Your task to perform on an android device: Check the news Image 0: 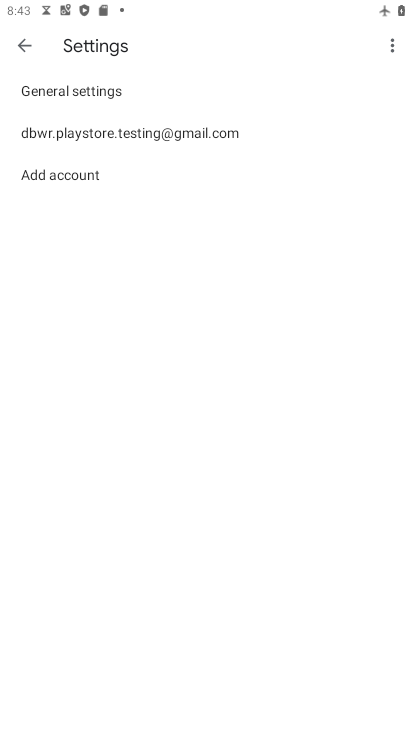
Step 0: press home button
Your task to perform on an android device: Check the news Image 1: 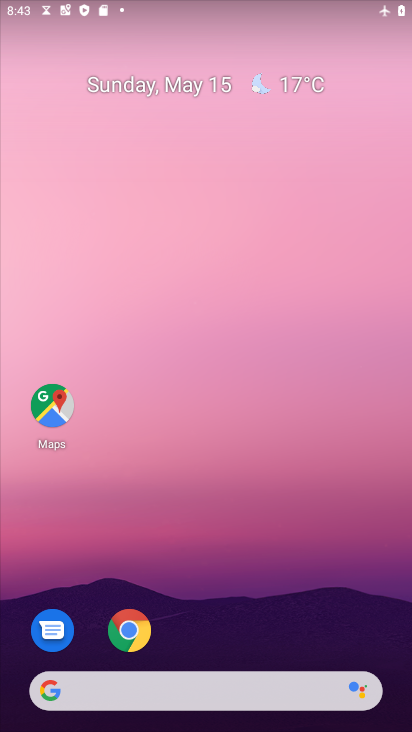
Step 1: drag from (294, 501) to (320, 22)
Your task to perform on an android device: Check the news Image 2: 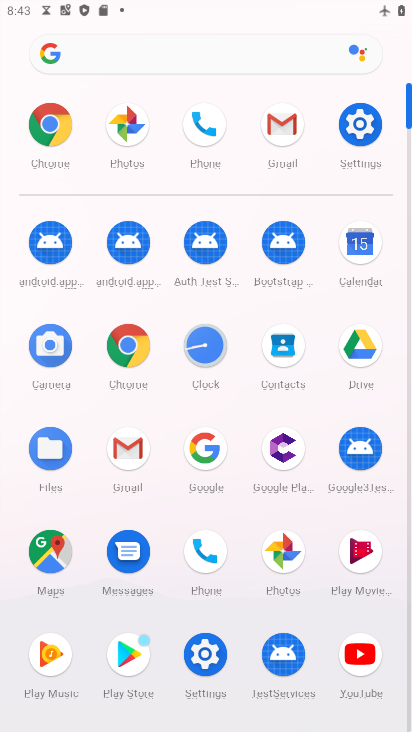
Step 2: click (36, 139)
Your task to perform on an android device: Check the news Image 3: 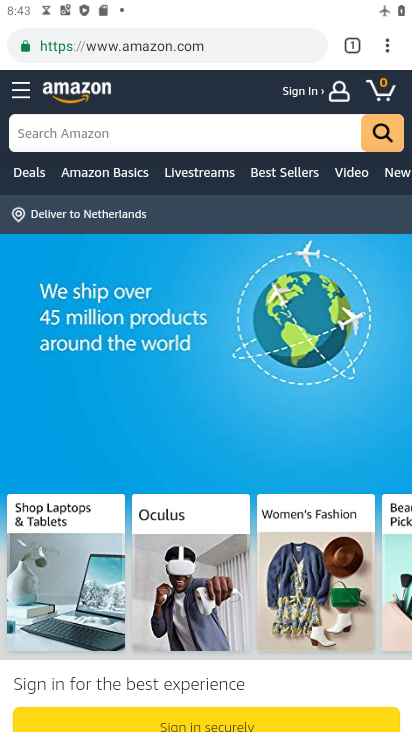
Step 3: task complete